Your task to perform on an android device: clear history in the chrome app Image 0: 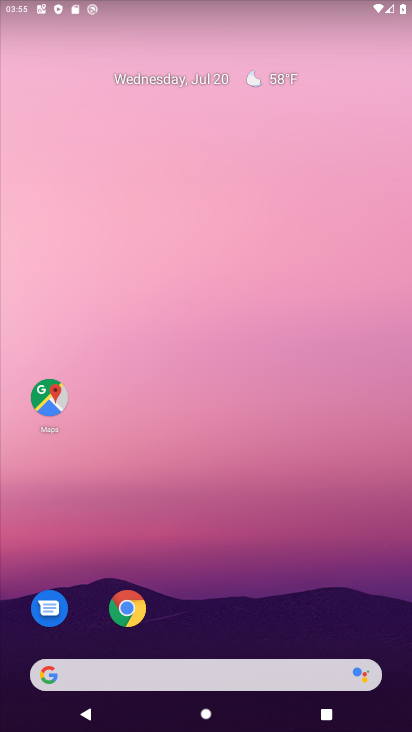
Step 0: click (119, 595)
Your task to perform on an android device: clear history in the chrome app Image 1: 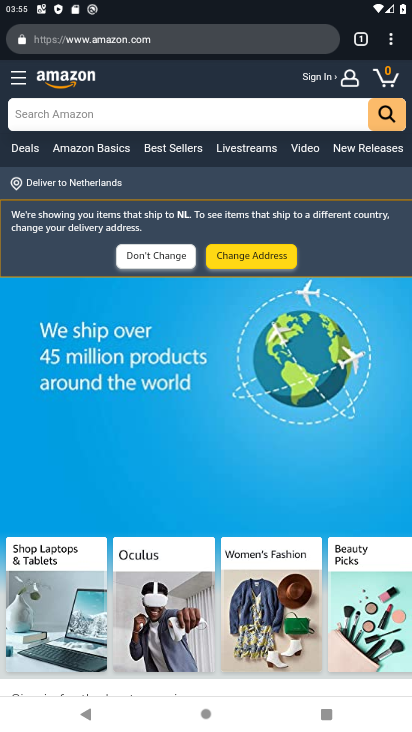
Step 1: click (390, 30)
Your task to perform on an android device: clear history in the chrome app Image 2: 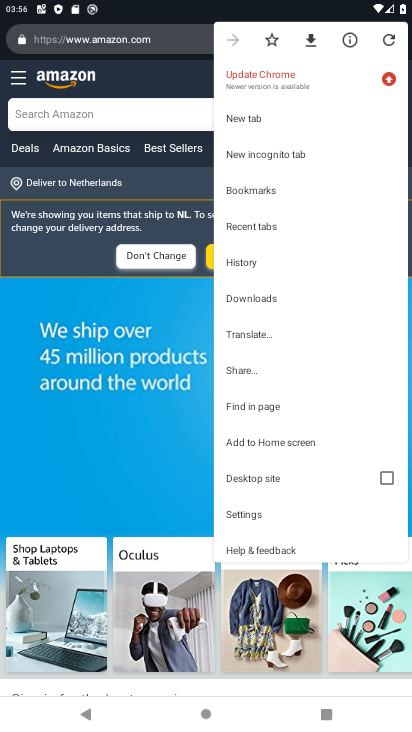
Step 2: click (284, 253)
Your task to perform on an android device: clear history in the chrome app Image 3: 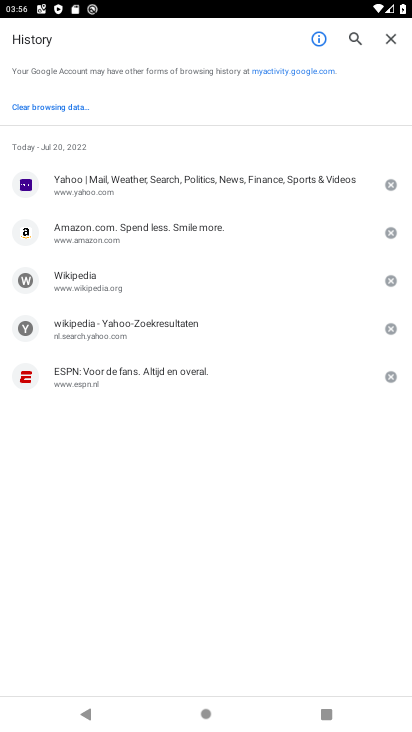
Step 3: click (92, 116)
Your task to perform on an android device: clear history in the chrome app Image 4: 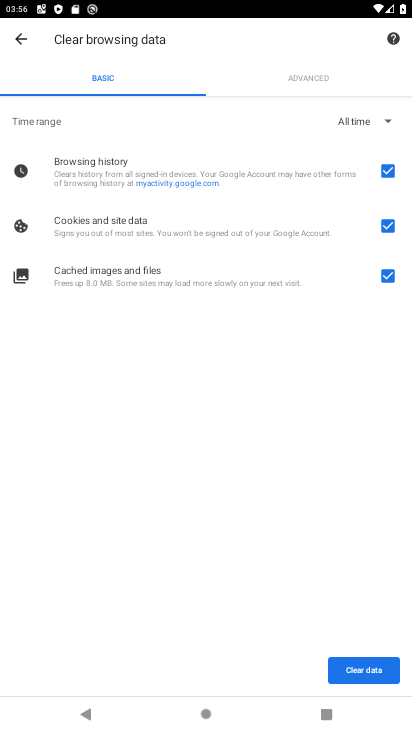
Step 4: click (359, 663)
Your task to perform on an android device: clear history in the chrome app Image 5: 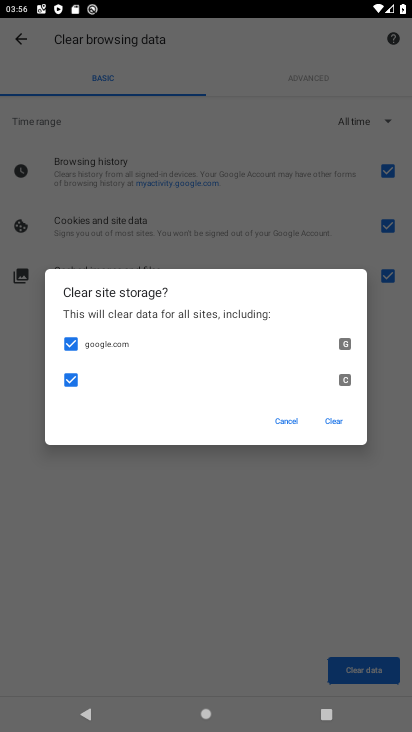
Step 5: task complete